Your task to perform on an android device: Open Google Maps Image 0: 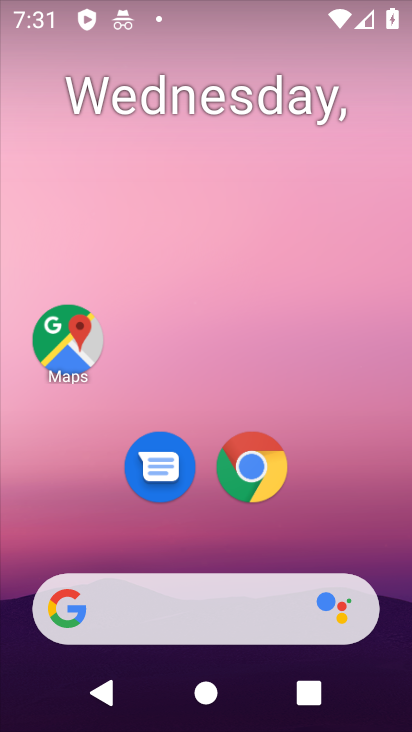
Step 0: click (67, 331)
Your task to perform on an android device: Open Google Maps Image 1: 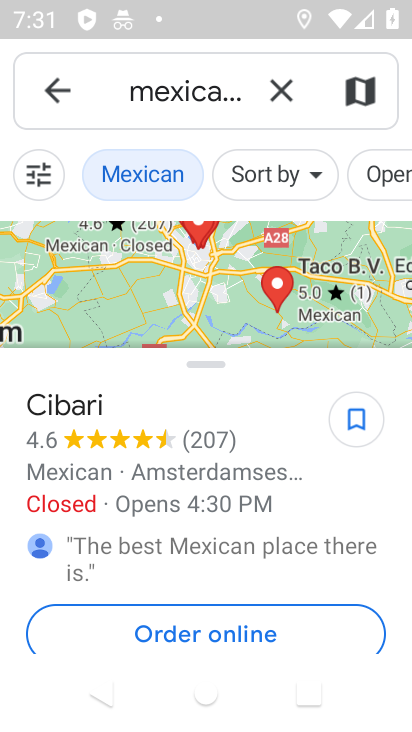
Step 1: task complete